Your task to perform on an android device: change text size in settings app Image 0: 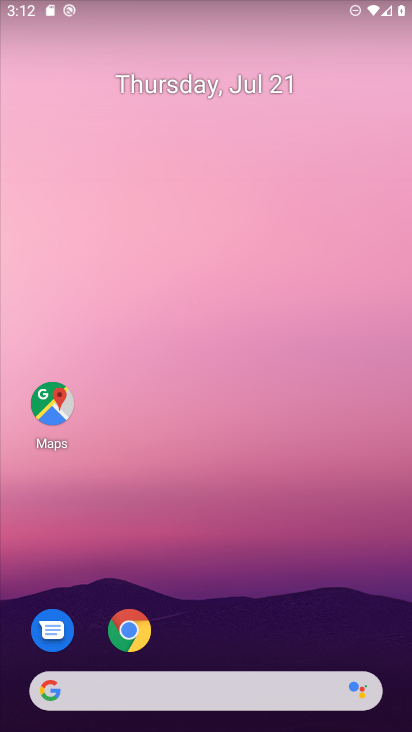
Step 0: drag from (208, 595) to (316, 34)
Your task to perform on an android device: change text size in settings app Image 1: 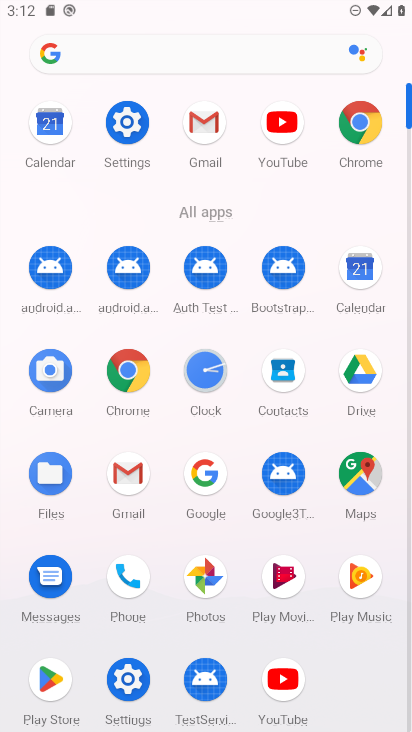
Step 1: click (129, 129)
Your task to perform on an android device: change text size in settings app Image 2: 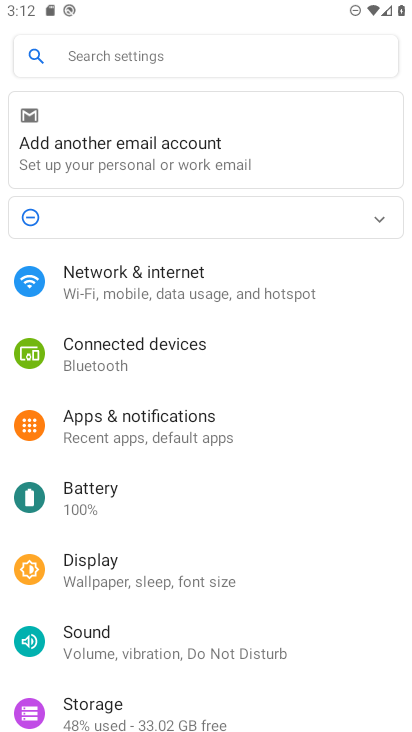
Step 2: click (132, 53)
Your task to perform on an android device: change text size in settings app Image 3: 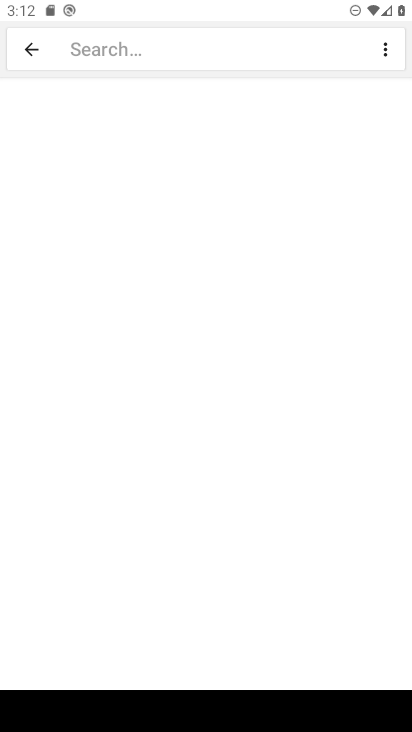
Step 3: type "text size"
Your task to perform on an android device: change text size in settings app Image 4: 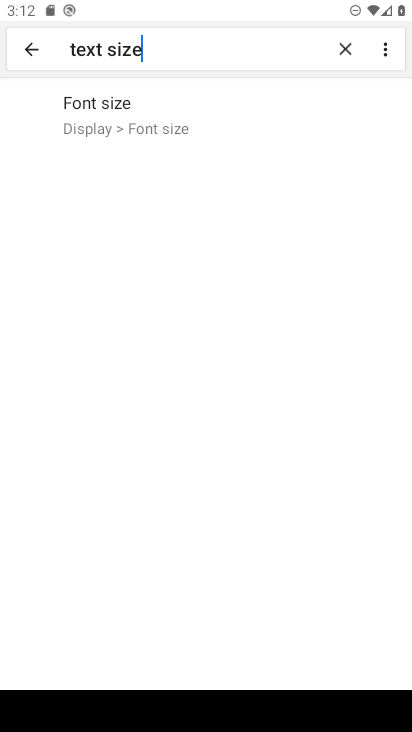
Step 4: click (126, 103)
Your task to perform on an android device: change text size in settings app Image 5: 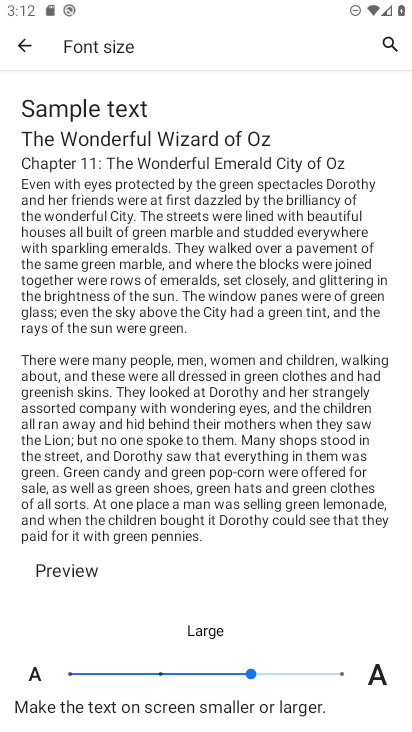
Step 5: task complete